Your task to perform on an android device: change the clock display to analog Image 0: 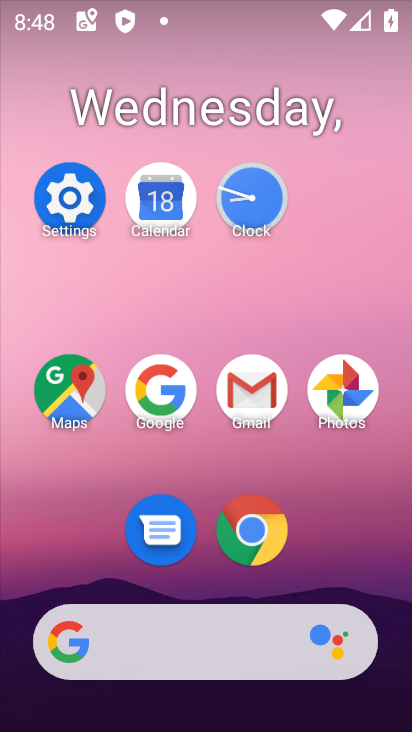
Step 0: click (237, 199)
Your task to perform on an android device: change the clock display to analog Image 1: 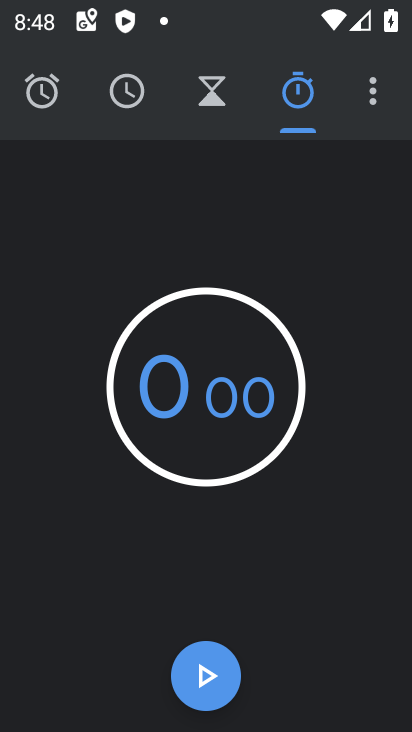
Step 1: click (374, 92)
Your task to perform on an android device: change the clock display to analog Image 2: 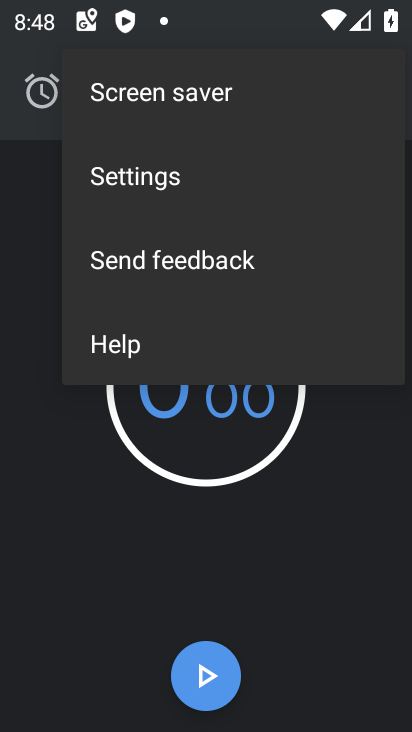
Step 2: click (217, 190)
Your task to perform on an android device: change the clock display to analog Image 3: 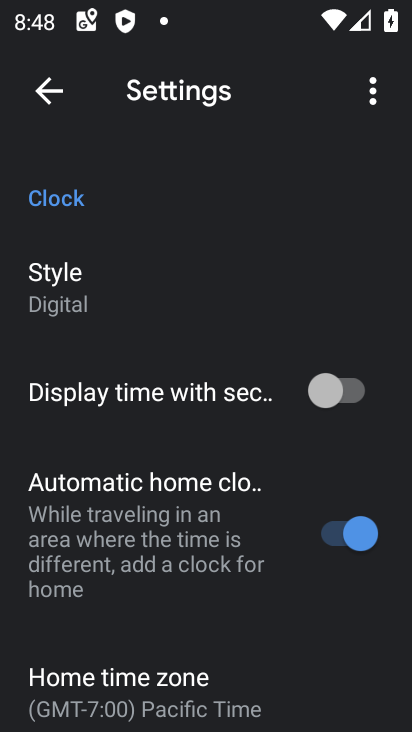
Step 3: click (125, 263)
Your task to perform on an android device: change the clock display to analog Image 4: 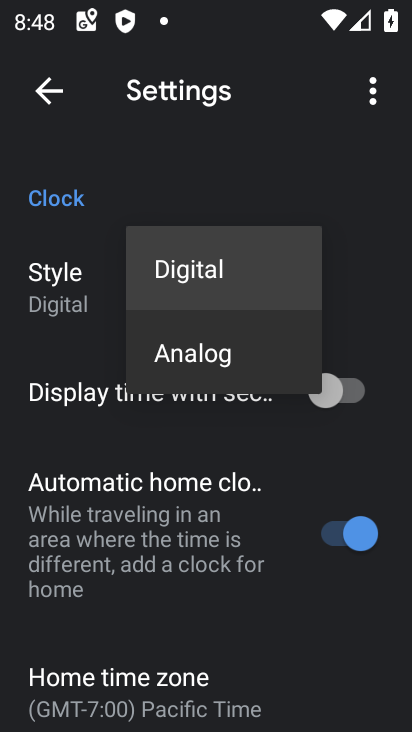
Step 4: click (222, 354)
Your task to perform on an android device: change the clock display to analog Image 5: 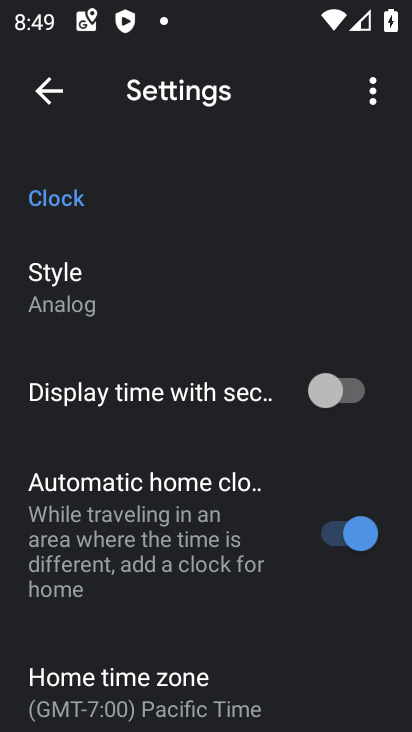
Step 5: task complete